Your task to perform on an android device: When is my next appointment? Image 0: 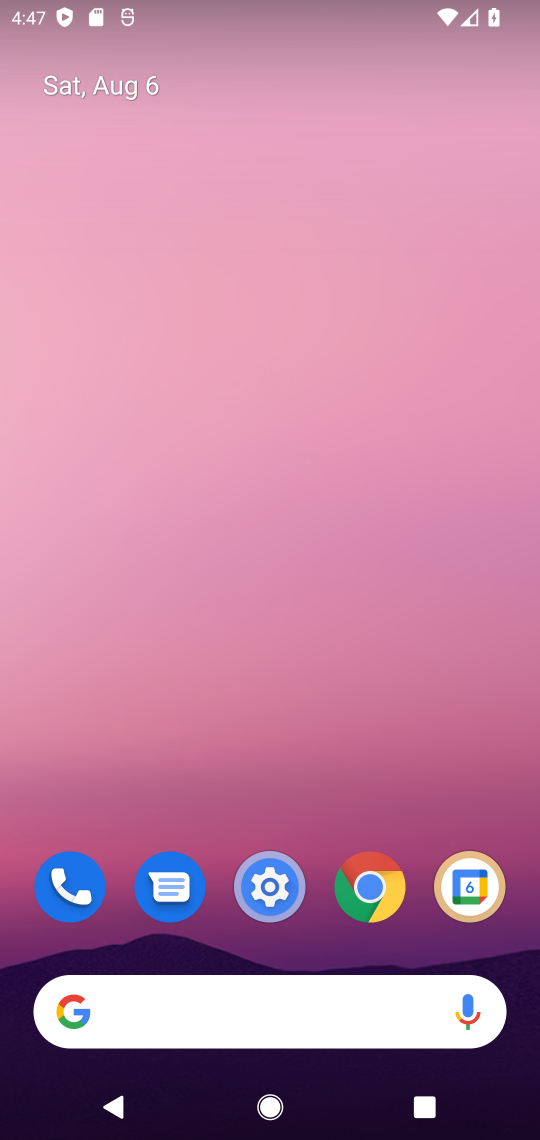
Step 0: drag from (306, 1032) to (374, 147)
Your task to perform on an android device: When is my next appointment? Image 1: 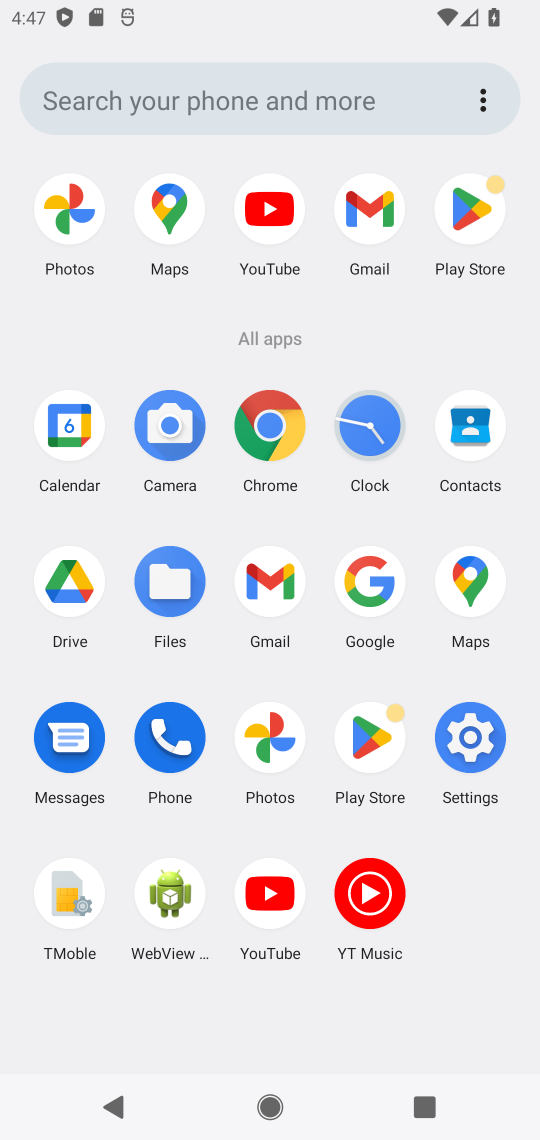
Step 1: click (75, 428)
Your task to perform on an android device: When is my next appointment? Image 2: 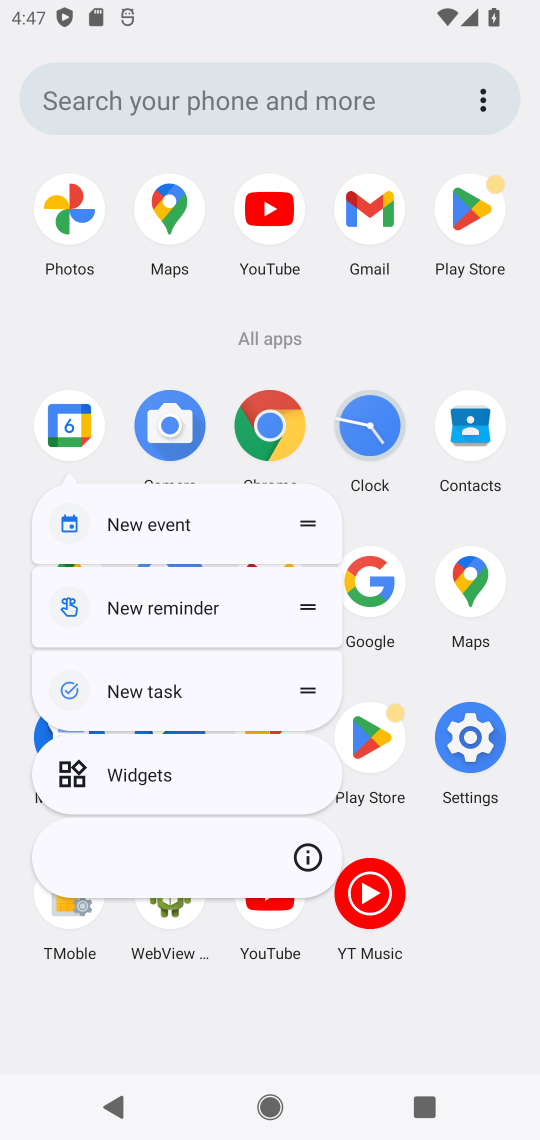
Step 2: click (75, 428)
Your task to perform on an android device: When is my next appointment? Image 3: 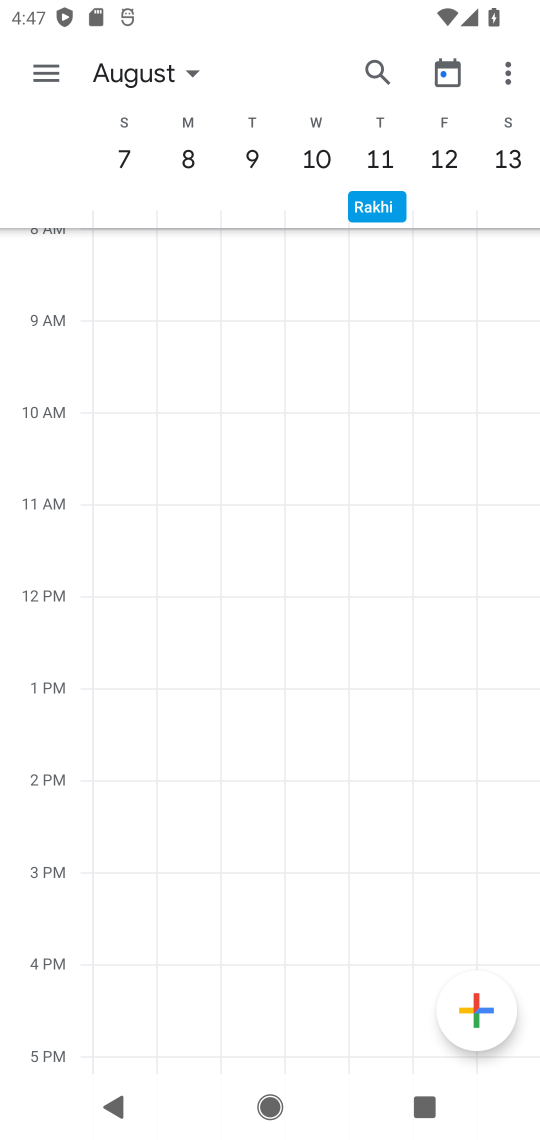
Step 3: click (58, 81)
Your task to perform on an android device: When is my next appointment? Image 4: 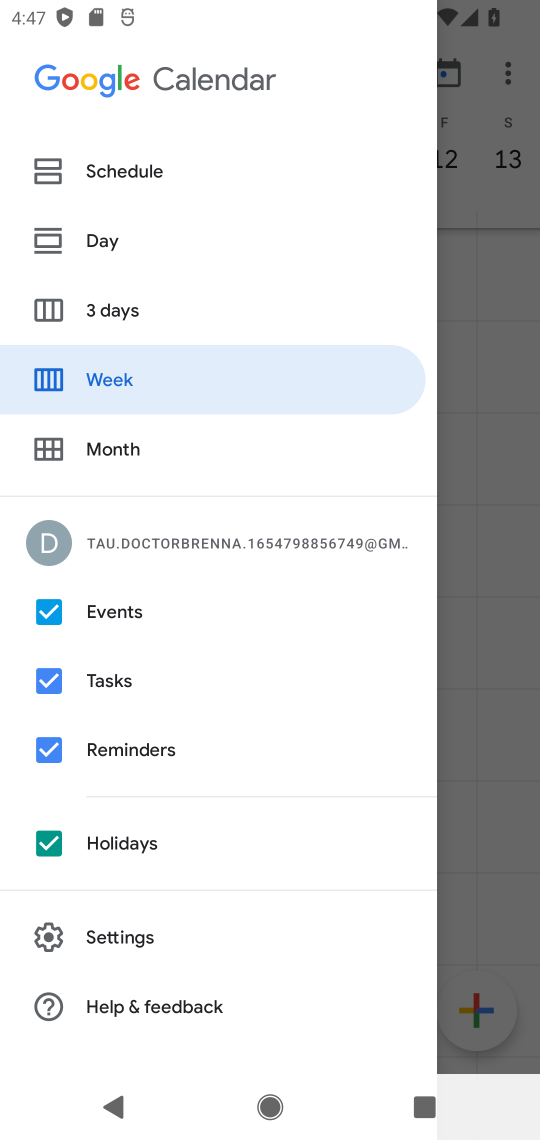
Step 4: click (134, 157)
Your task to perform on an android device: When is my next appointment? Image 5: 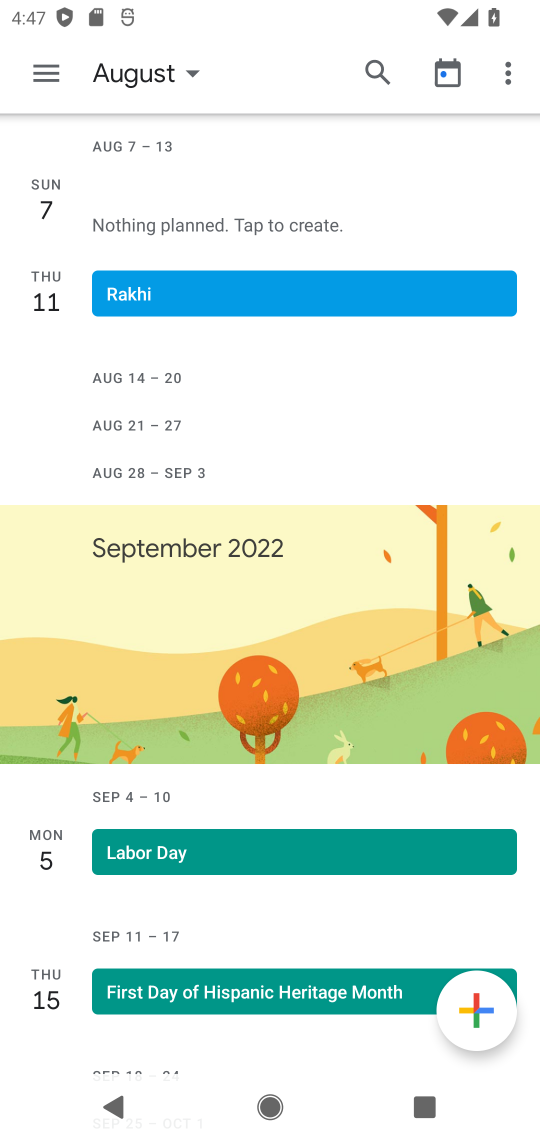
Step 5: task complete